Your task to perform on an android device: create a new album in the google photos Image 0: 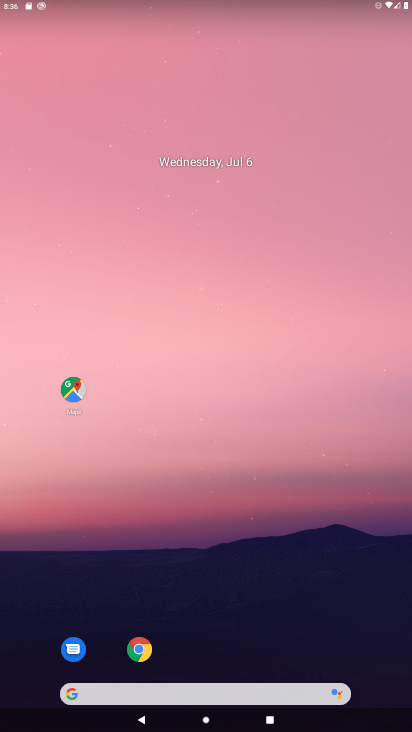
Step 0: drag from (270, 497) to (294, 172)
Your task to perform on an android device: create a new album in the google photos Image 1: 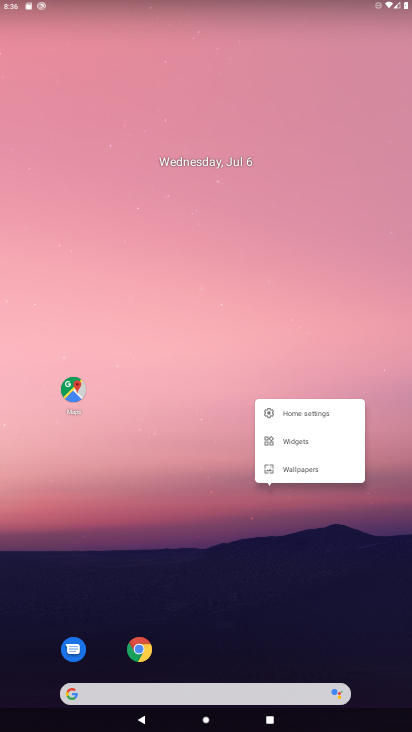
Step 1: drag from (231, 580) to (181, 144)
Your task to perform on an android device: create a new album in the google photos Image 2: 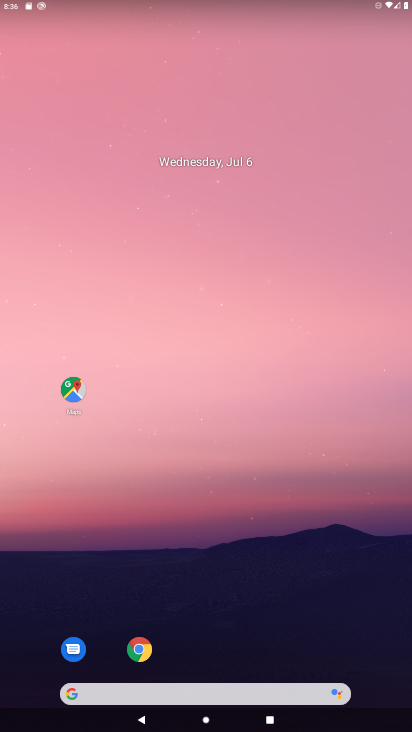
Step 2: click (228, 265)
Your task to perform on an android device: create a new album in the google photos Image 3: 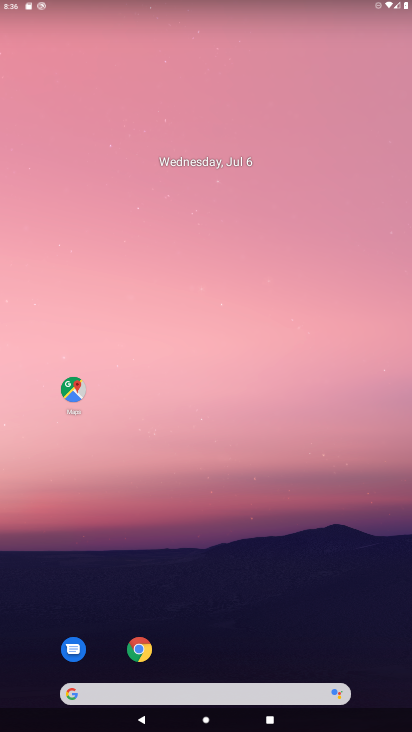
Step 3: click (229, 267)
Your task to perform on an android device: create a new album in the google photos Image 4: 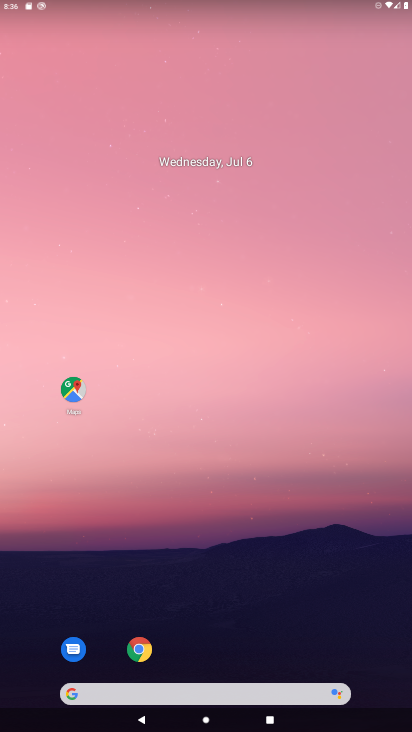
Step 4: drag from (266, 614) to (190, 48)
Your task to perform on an android device: create a new album in the google photos Image 5: 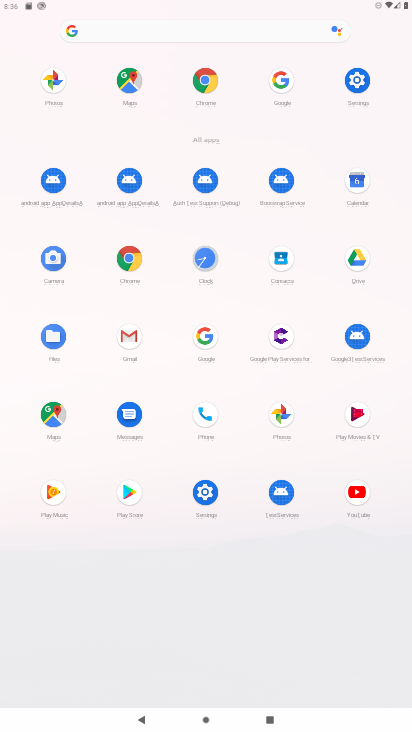
Step 5: click (277, 419)
Your task to perform on an android device: create a new album in the google photos Image 6: 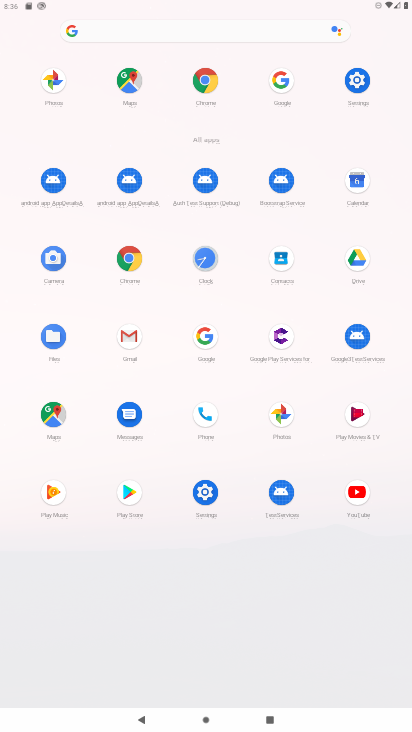
Step 6: click (279, 420)
Your task to perform on an android device: create a new album in the google photos Image 7: 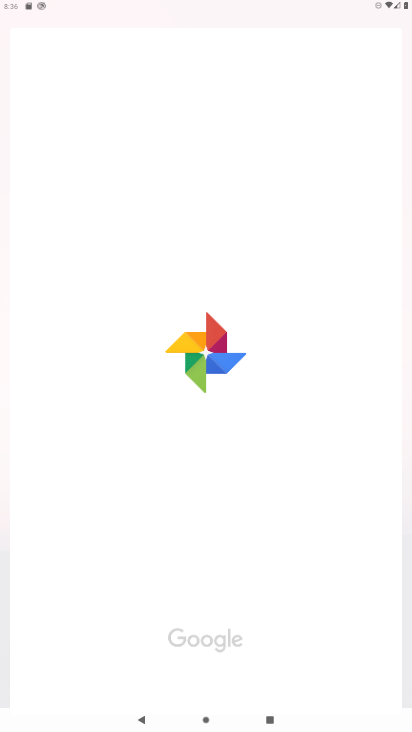
Step 7: click (281, 420)
Your task to perform on an android device: create a new album in the google photos Image 8: 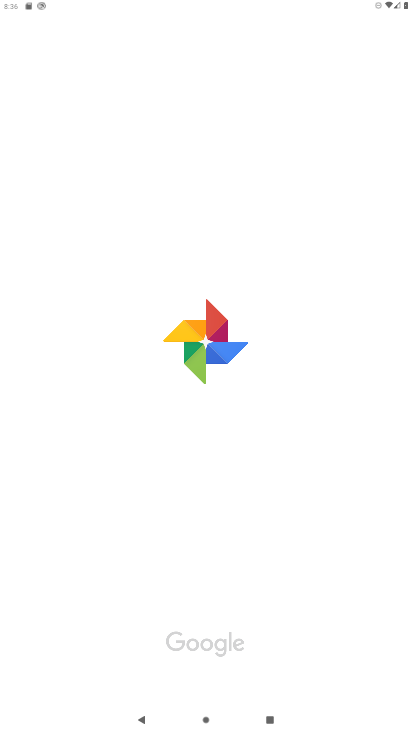
Step 8: click (281, 420)
Your task to perform on an android device: create a new album in the google photos Image 9: 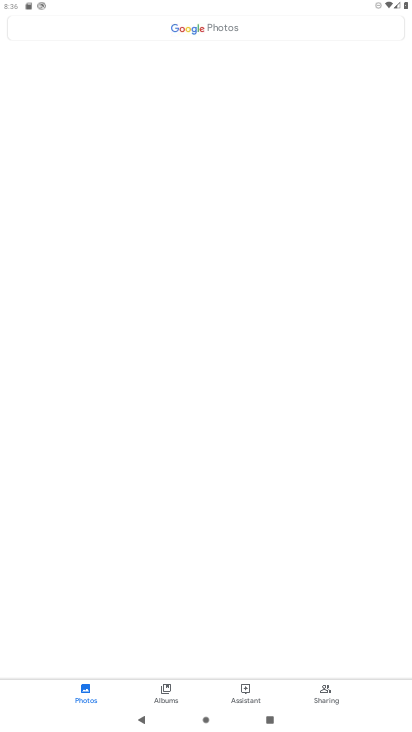
Step 9: click (281, 420)
Your task to perform on an android device: create a new album in the google photos Image 10: 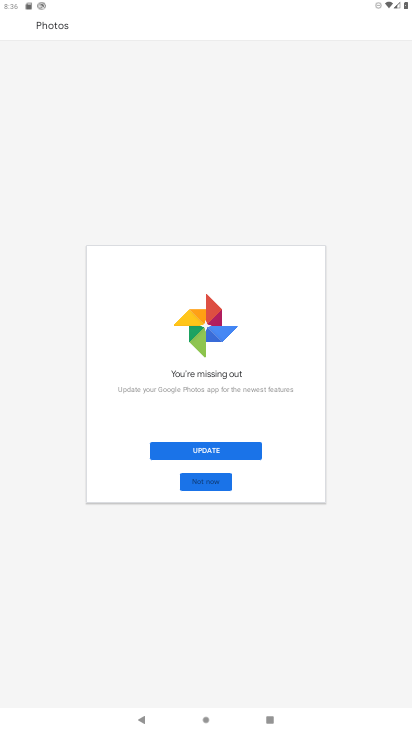
Step 10: click (212, 480)
Your task to perform on an android device: create a new album in the google photos Image 11: 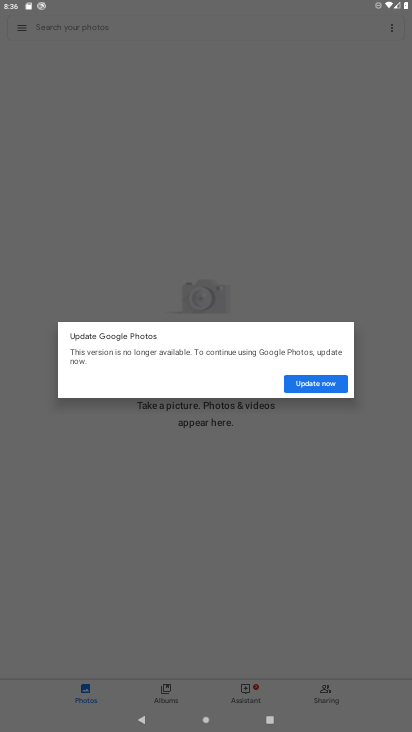
Step 11: click (341, 368)
Your task to perform on an android device: create a new album in the google photos Image 12: 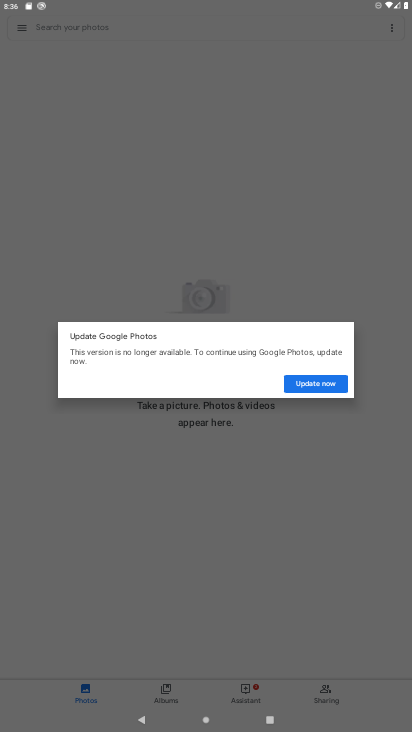
Step 12: click (341, 368)
Your task to perform on an android device: create a new album in the google photos Image 13: 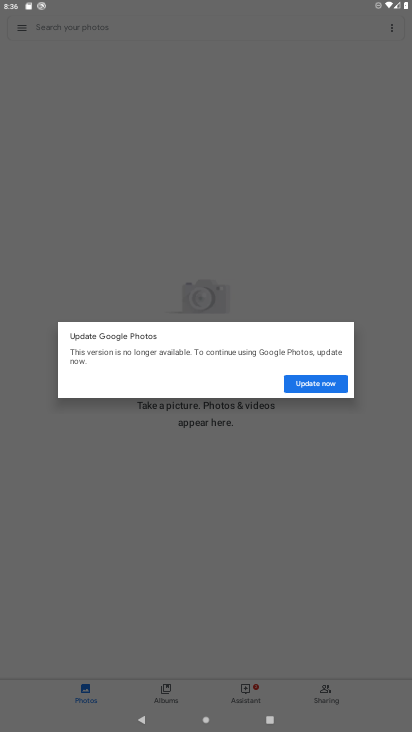
Step 13: click (333, 375)
Your task to perform on an android device: create a new album in the google photos Image 14: 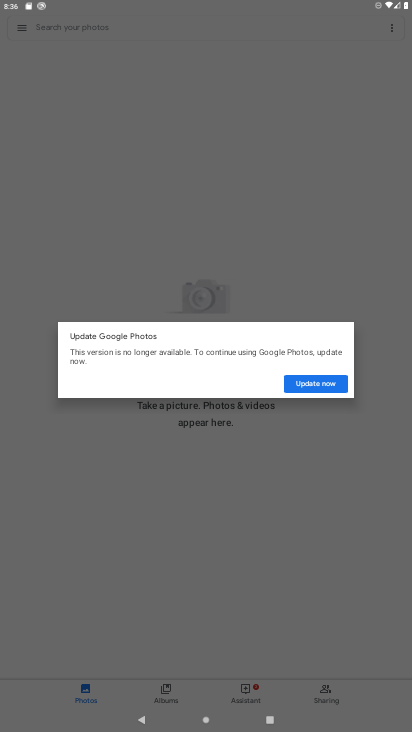
Step 14: click (334, 376)
Your task to perform on an android device: create a new album in the google photos Image 15: 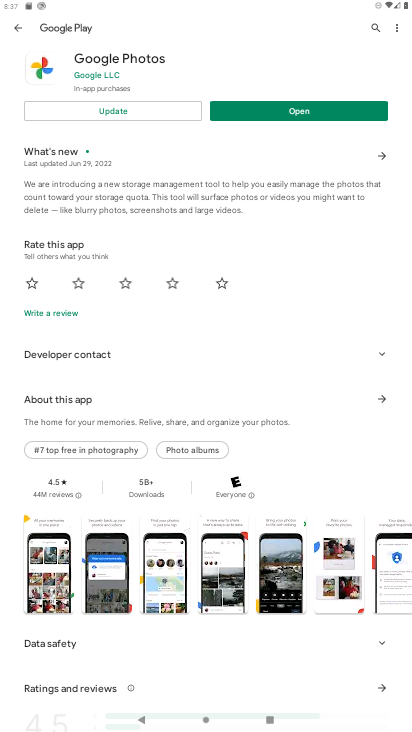
Step 15: click (181, 116)
Your task to perform on an android device: create a new album in the google photos Image 16: 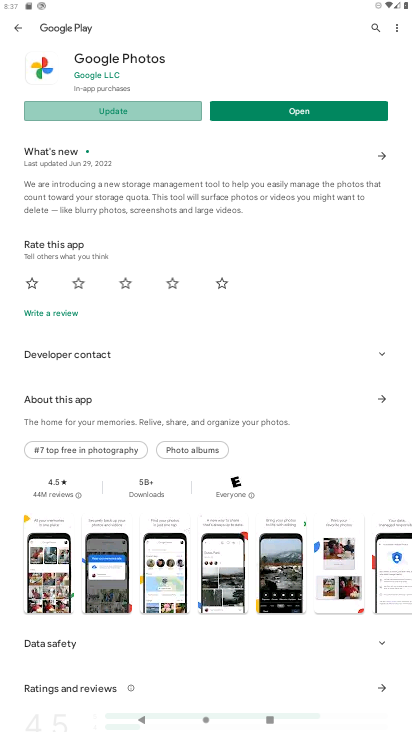
Step 16: click (181, 116)
Your task to perform on an android device: create a new album in the google photos Image 17: 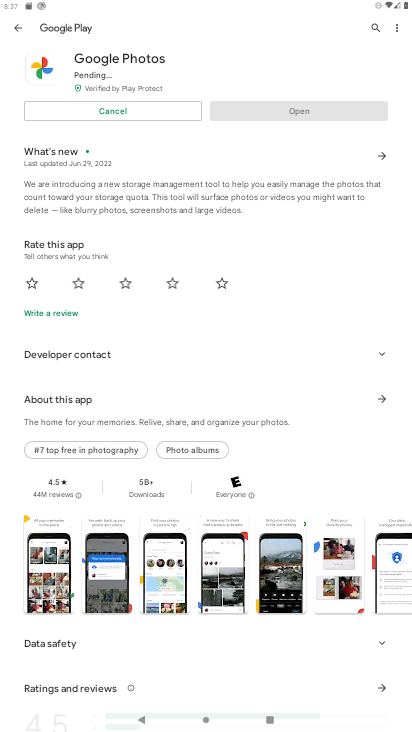
Step 17: click (181, 116)
Your task to perform on an android device: create a new album in the google photos Image 18: 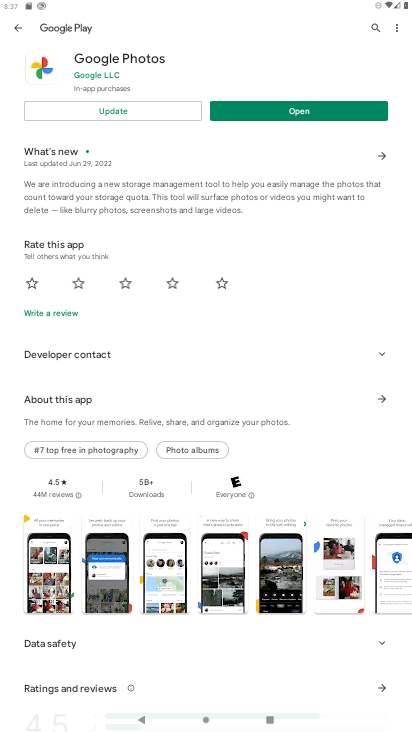
Step 18: click (288, 104)
Your task to perform on an android device: create a new album in the google photos Image 19: 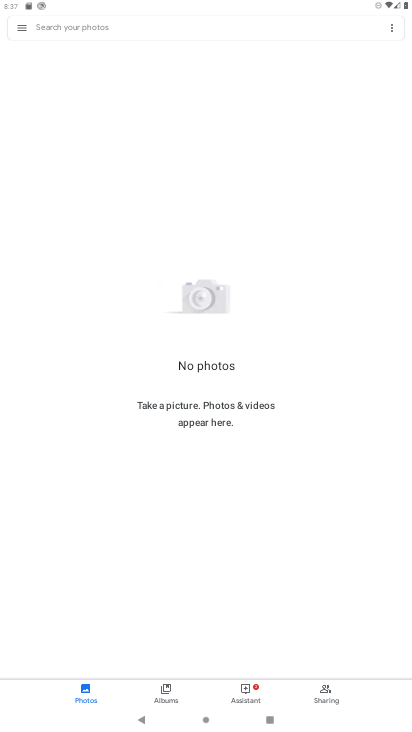
Step 19: click (177, 689)
Your task to perform on an android device: create a new album in the google photos Image 20: 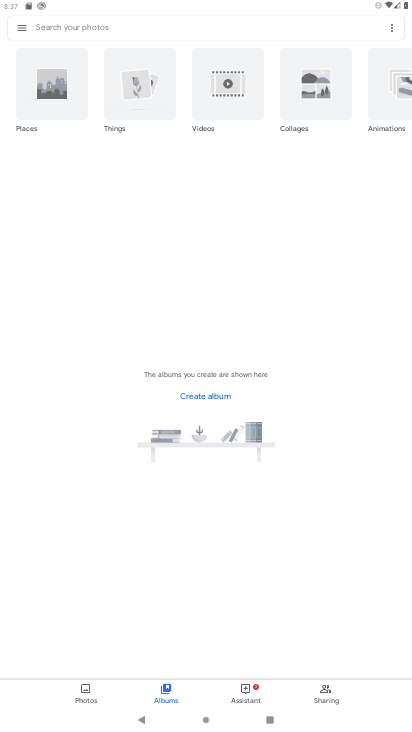
Step 20: click (215, 403)
Your task to perform on an android device: create a new album in the google photos Image 21: 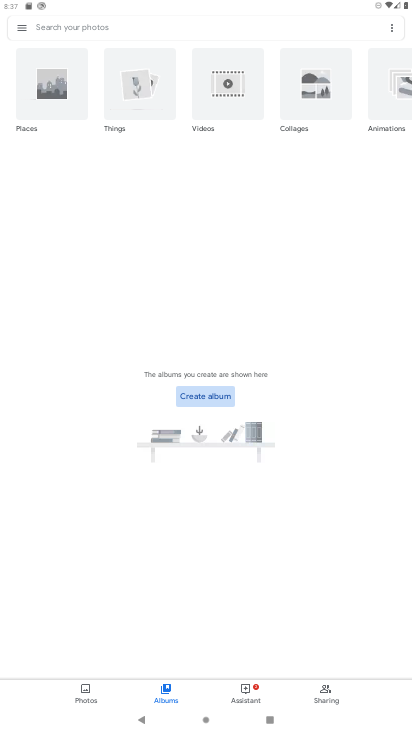
Step 21: click (215, 399)
Your task to perform on an android device: create a new album in the google photos Image 22: 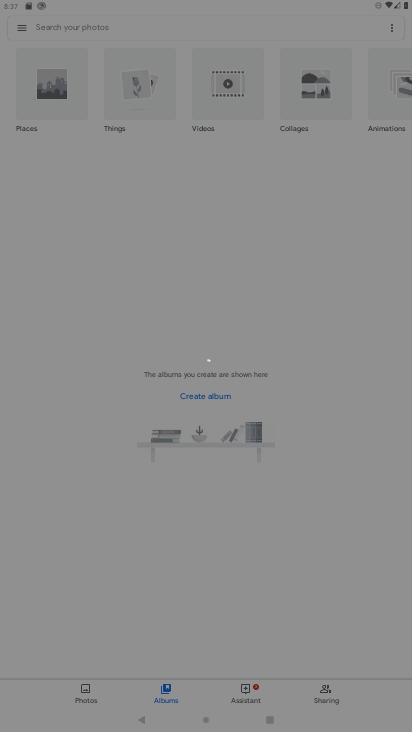
Step 22: click (215, 396)
Your task to perform on an android device: create a new album in the google photos Image 23: 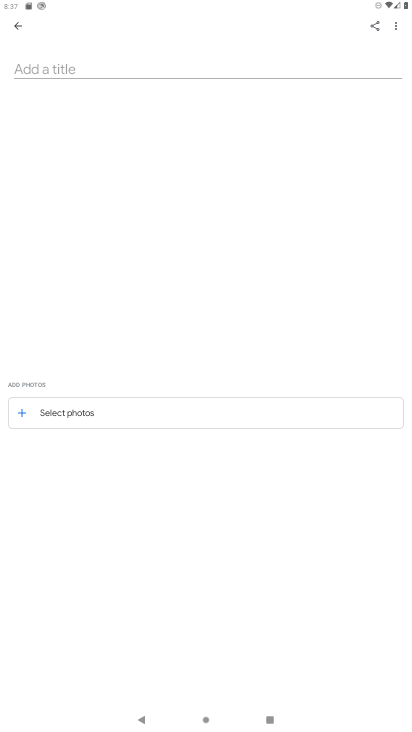
Step 23: click (87, 410)
Your task to perform on an android device: create a new album in the google photos Image 24: 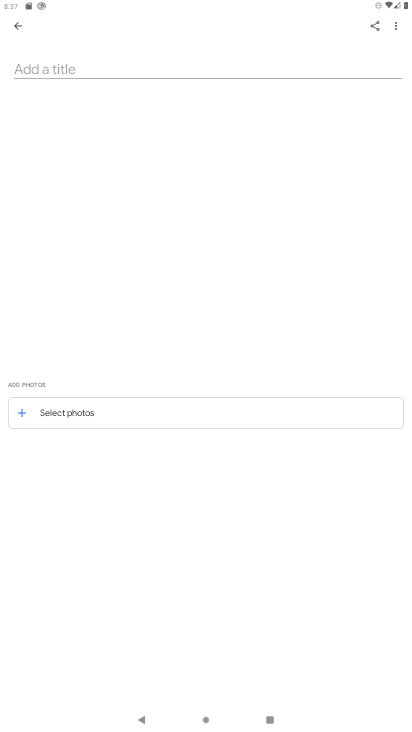
Step 24: click (87, 410)
Your task to perform on an android device: create a new album in the google photos Image 25: 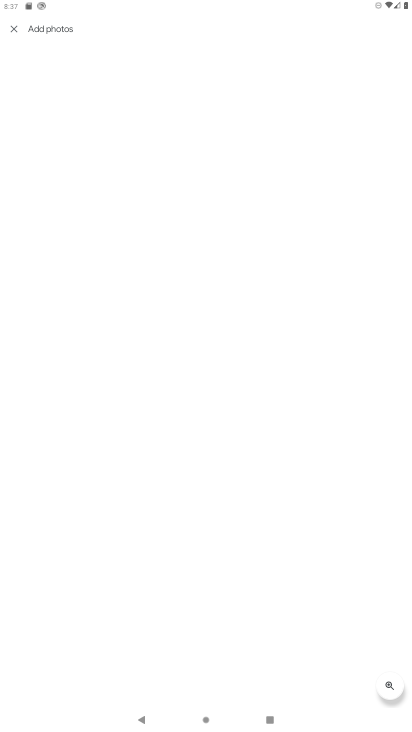
Step 25: click (48, 30)
Your task to perform on an android device: create a new album in the google photos Image 26: 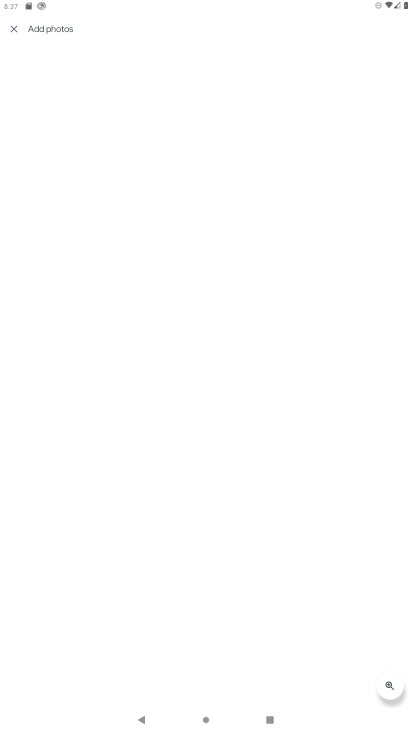
Step 26: click (55, 31)
Your task to perform on an android device: create a new album in the google photos Image 27: 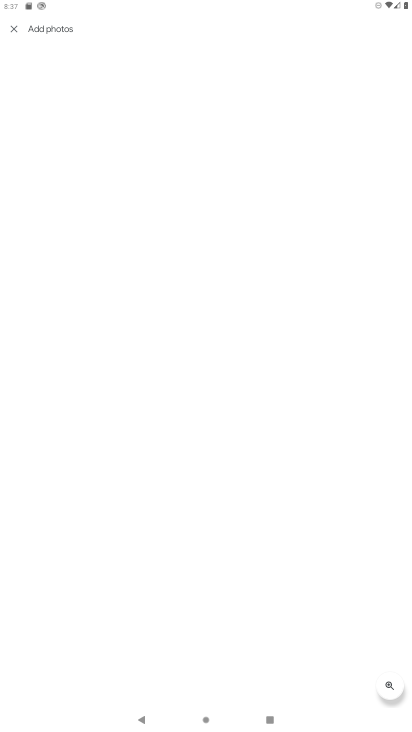
Step 27: click (60, 31)
Your task to perform on an android device: create a new album in the google photos Image 28: 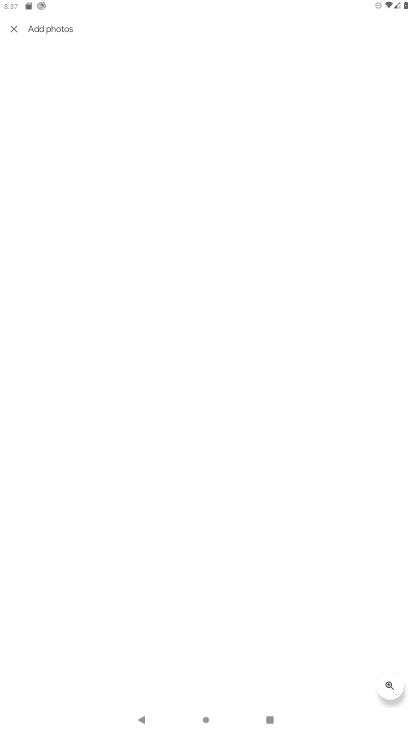
Step 28: click (61, 30)
Your task to perform on an android device: create a new album in the google photos Image 29: 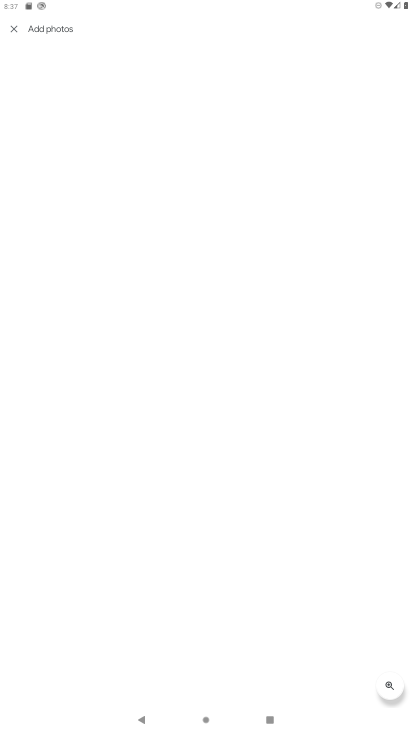
Step 29: click (61, 30)
Your task to perform on an android device: create a new album in the google photos Image 30: 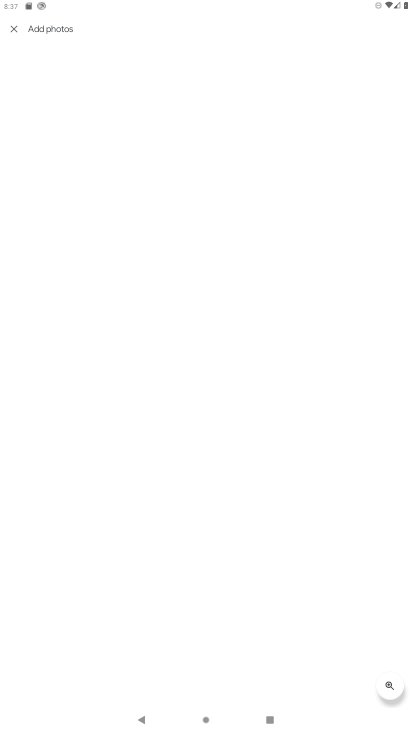
Step 30: click (63, 31)
Your task to perform on an android device: create a new album in the google photos Image 31: 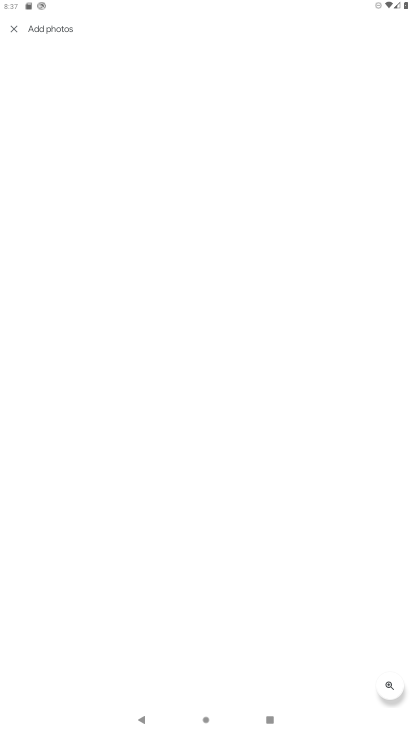
Step 31: click (61, 33)
Your task to perform on an android device: create a new album in the google photos Image 32: 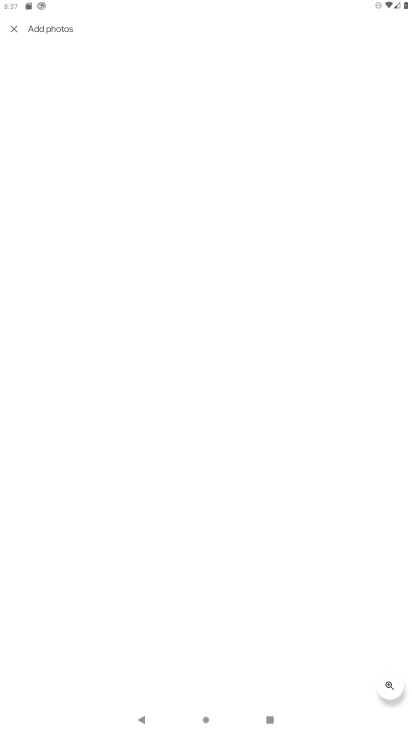
Step 32: click (60, 34)
Your task to perform on an android device: create a new album in the google photos Image 33: 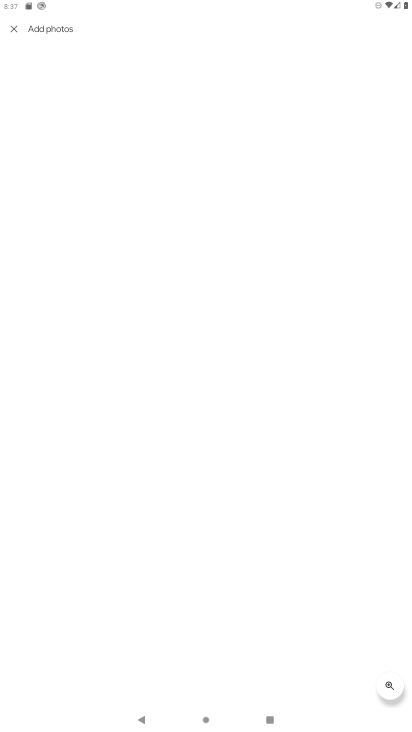
Step 33: click (60, 35)
Your task to perform on an android device: create a new album in the google photos Image 34: 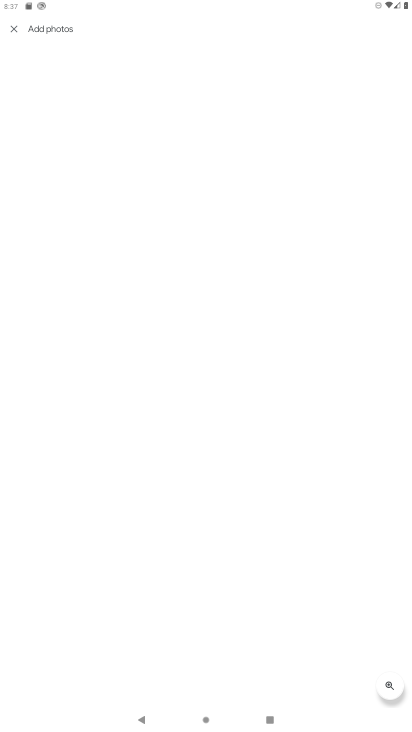
Step 34: click (18, 24)
Your task to perform on an android device: create a new album in the google photos Image 35: 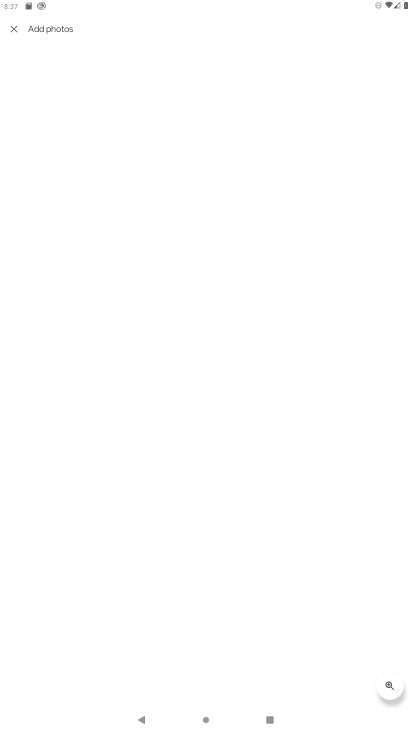
Step 35: click (19, 27)
Your task to perform on an android device: create a new album in the google photos Image 36: 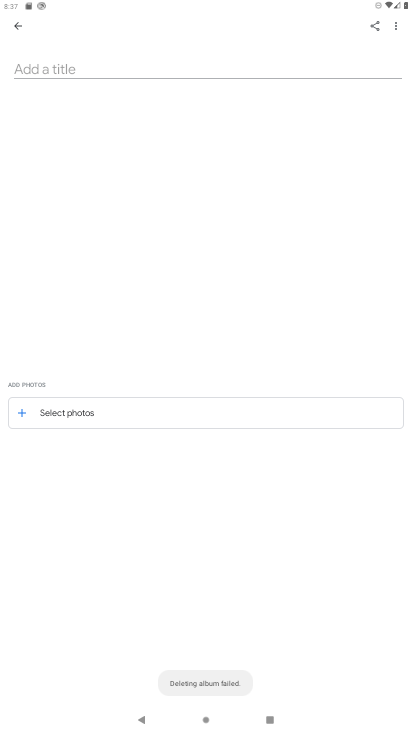
Step 36: click (32, 73)
Your task to perform on an android device: create a new album in the google photos Image 37: 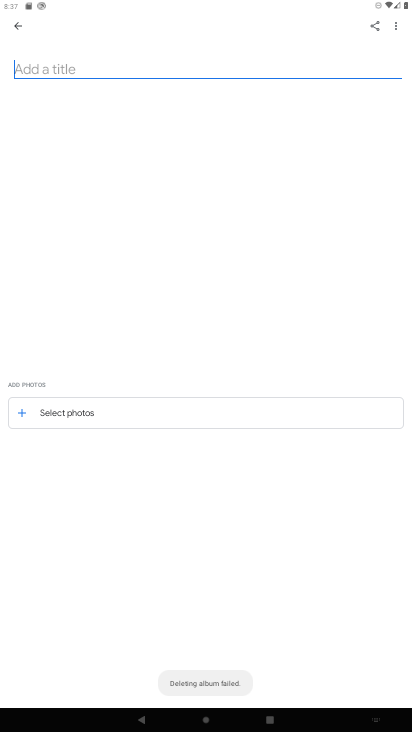
Step 37: click (32, 73)
Your task to perform on an android device: create a new album in the google photos Image 38: 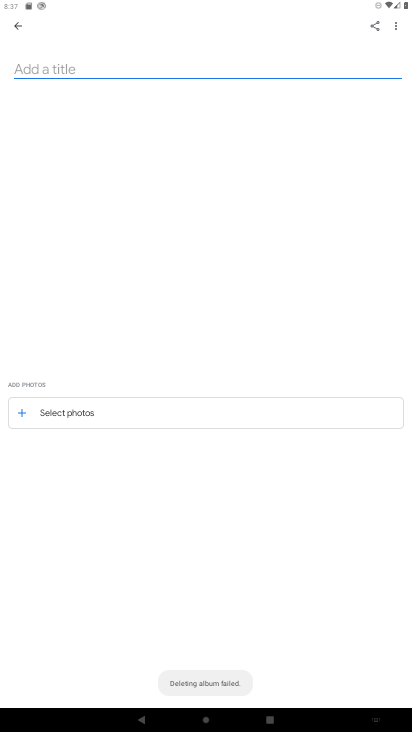
Step 38: click (32, 73)
Your task to perform on an android device: create a new album in the google photos Image 39: 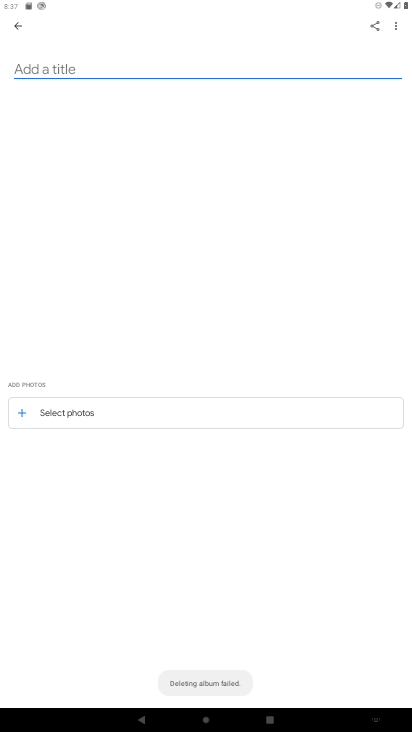
Step 39: click (32, 73)
Your task to perform on an android device: create a new album in the google photos Image 40: 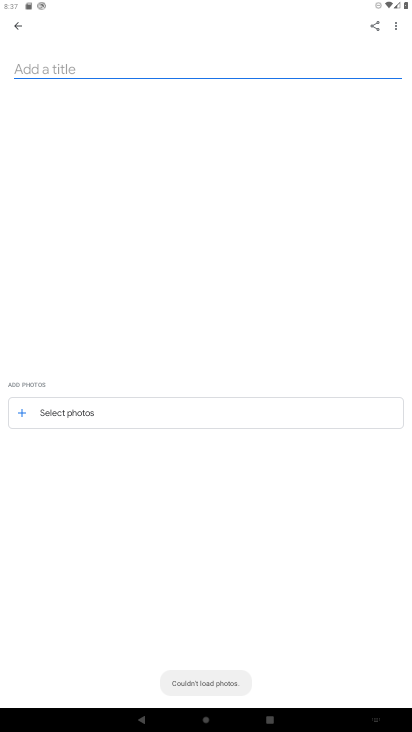
Step 40: type "ram"
Your task to perform on an android device: create a new album in the google photos Image 41: 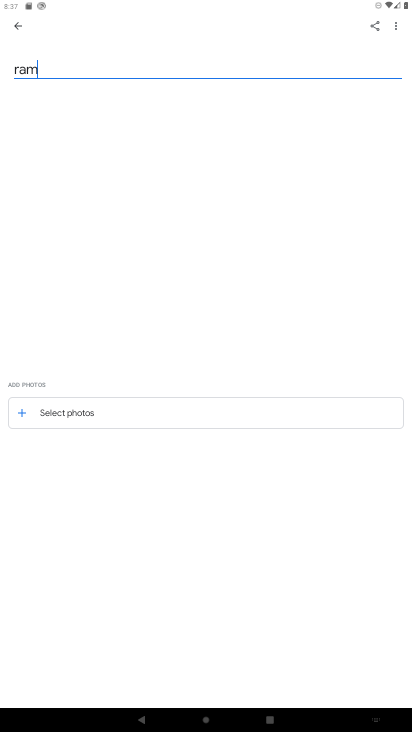
Step 41: click (50, 387)
Your task to perform on an android device: create a new album in the google photos Image 42: 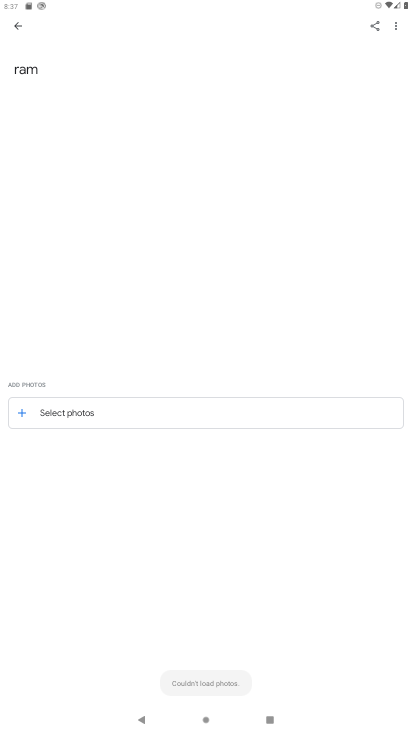
Step 42: click (64, 404)
Your task to perform on an android device: create a new album in the google photos Image 43: 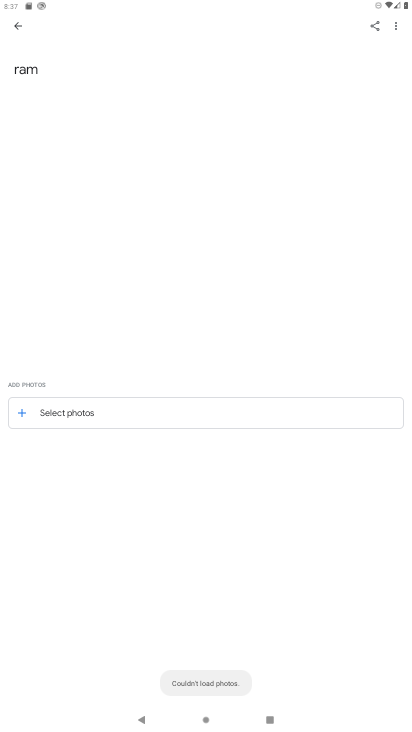
Step 43: click (64, 404)
Your task to perform on an android device: create a new album in the google photos Image 44: 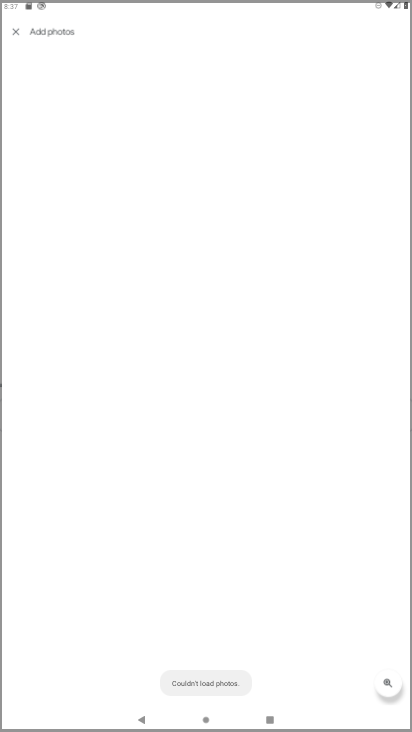
Step 44: click (65, 407)
Your task to perform on an android device: create a new album in the google photos Image 45: 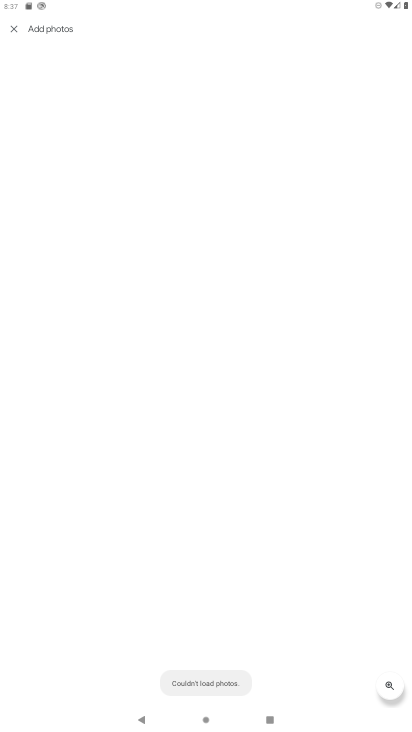
Step 45: click (67, 409)
Your task to perform on an android device: create a new album in the google photos Image 46: 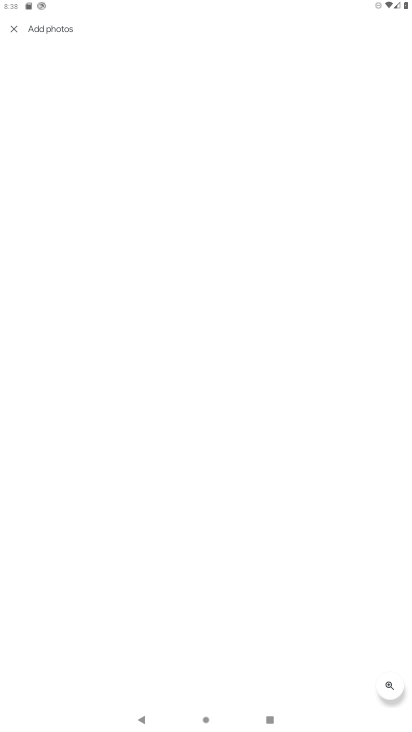
Step 46: task complete